Your task to perform on an android device: Open battery settings Image 0: 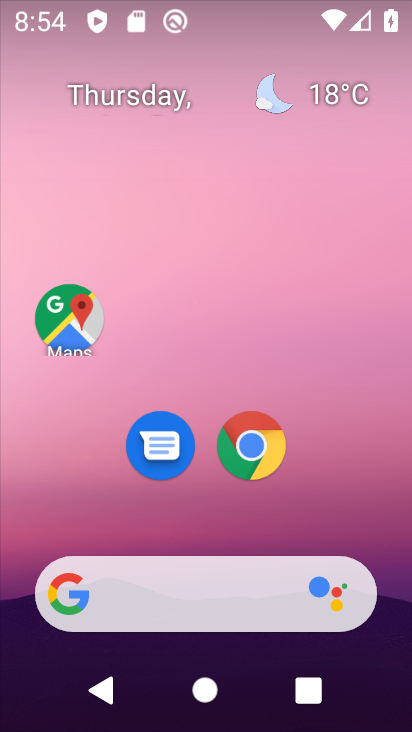
Step 0: drag from (399, 571) to (318, 224)
Your task to perform on an android device: Open battery settings Image 1: 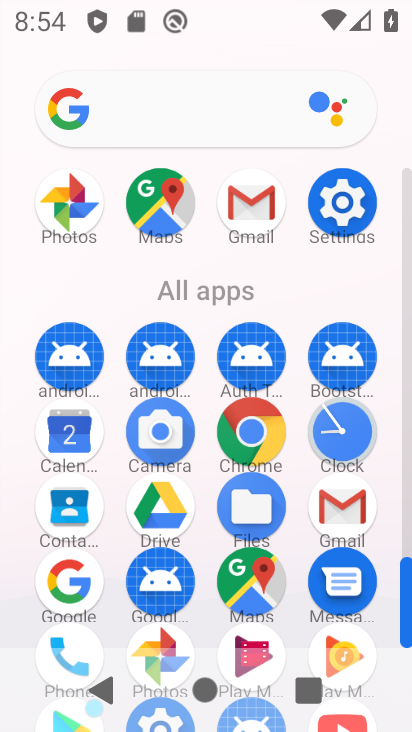
Step 1: click (358, 217)
Your task to perform on an android device: Open battery settings Image 2: 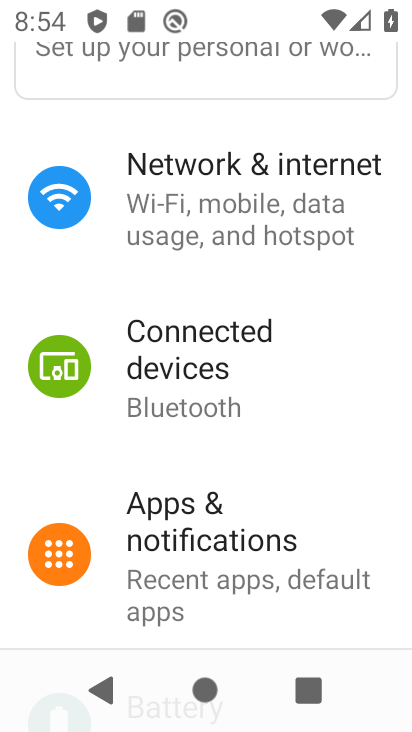
Step 2: drag from (284, 511) to (215, 96)
Your task to perform on an android device: Open battery settings Image 3: 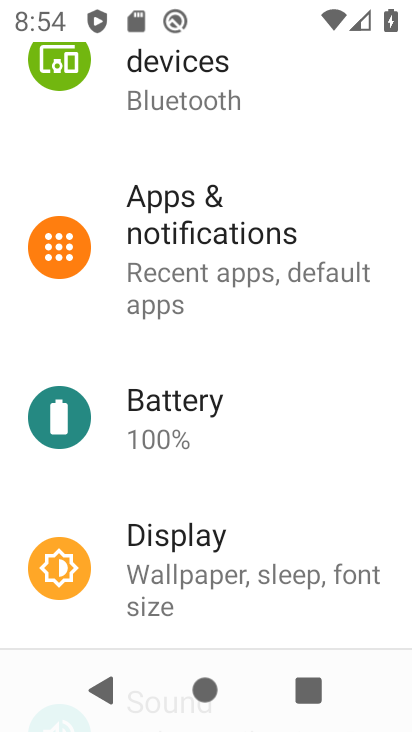
Step 3: click (292, 419)
Your task to perform on an android device: Open battery settings Image 4: 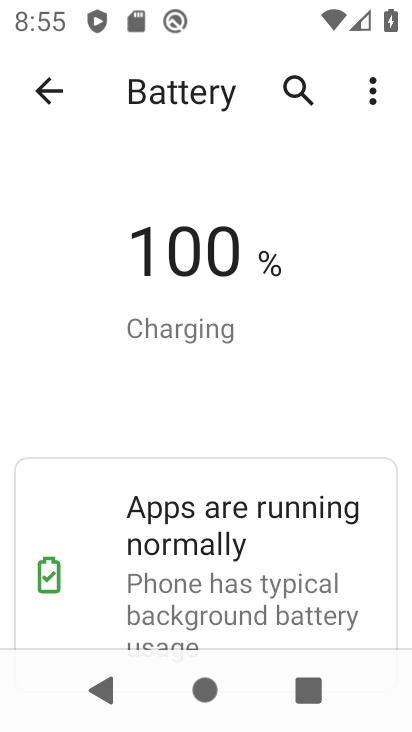
Step 4: task complete